Your task to perform on an android device: all mails in gmail Image 0: 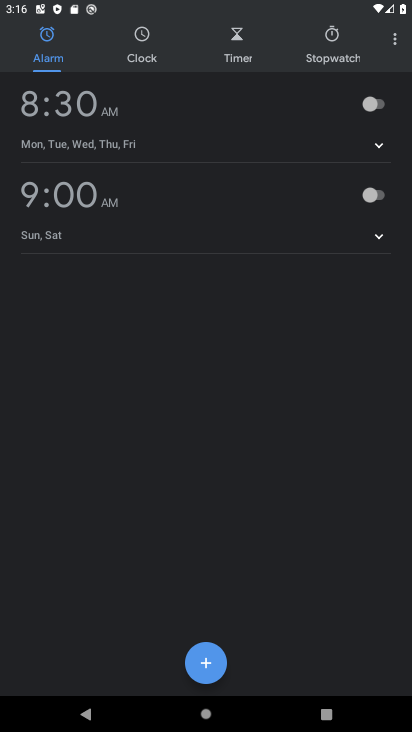
Step 0: press home button
Your task to perform on an android device: all mails in gmail Image 1: 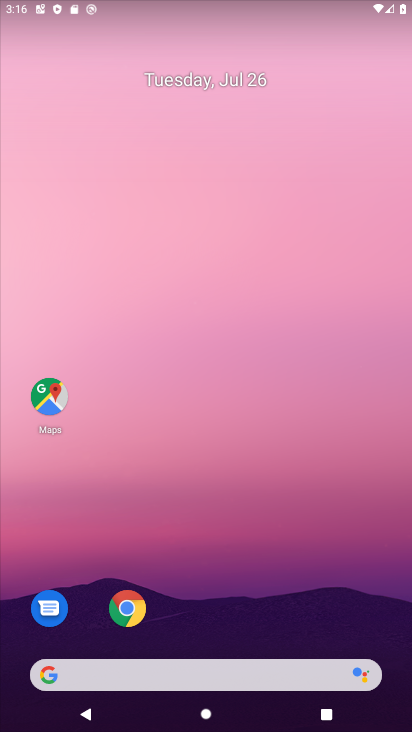
Step 1: drag from (277, 583) to (321, 187)
Your task to perform on an android device: all mails in gmail Image 2: 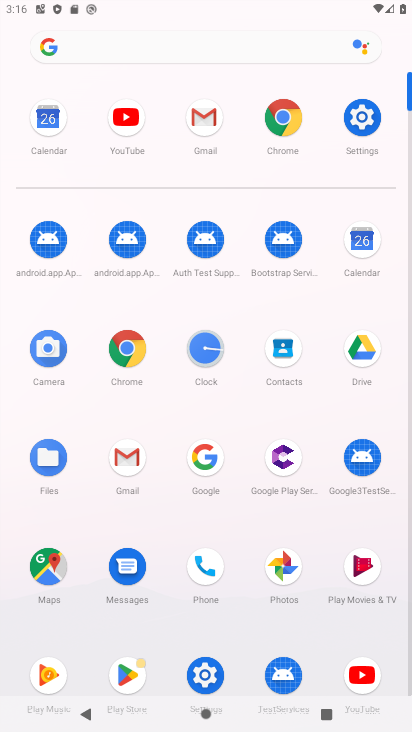
Step 2: click (121, 459)
Your task to perform on an android device: all mails in gmail Image 3: 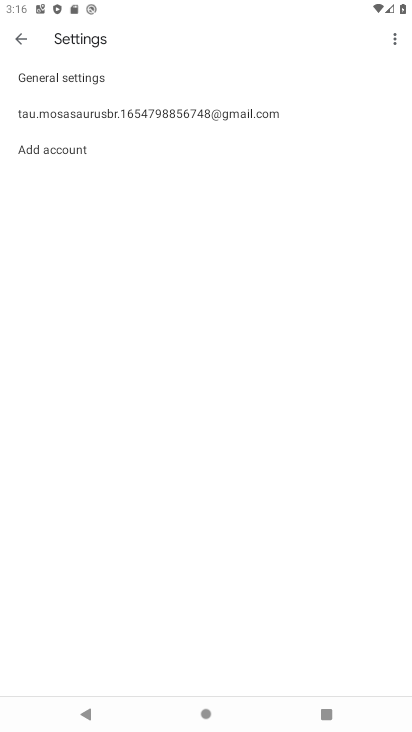
Step 3: click (14, 38)
Your task to perform on an android device: all mails in gmail Image 4: 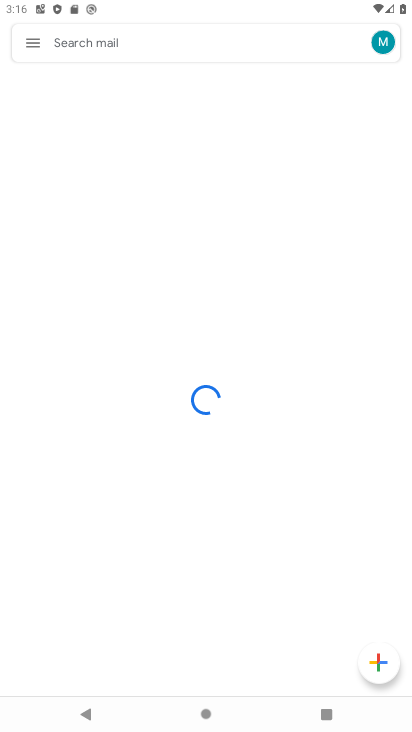
Step 4: click (29, 43)
Your task to perform on an android device: all mails in gmail Image 5: 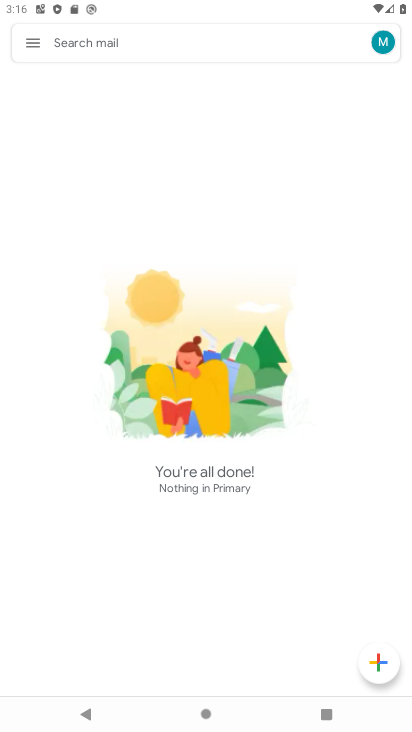
Step 5: click (28, 35)
Your task to perform on an android device: all mails in gmail Image 6: 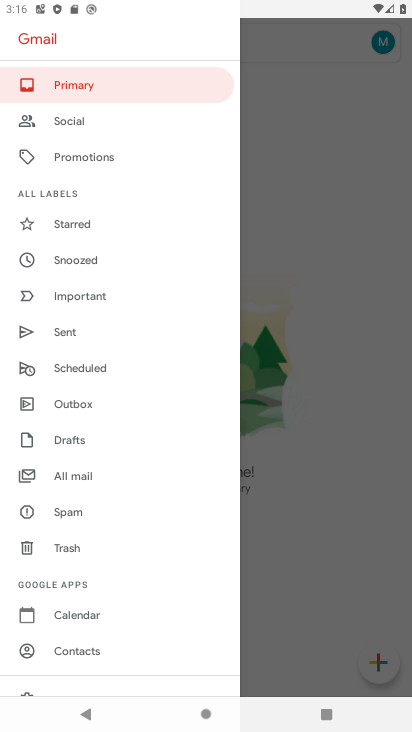
Step 6: click (60, 480)
Your task to perform on an android device: all mails in gmail Image 7: 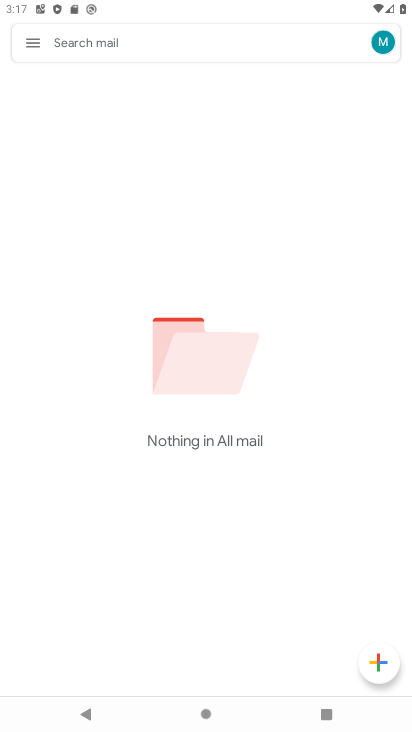
Step 7: task complete